Your task to perform on an android device: turn on airplane mode Image 0: 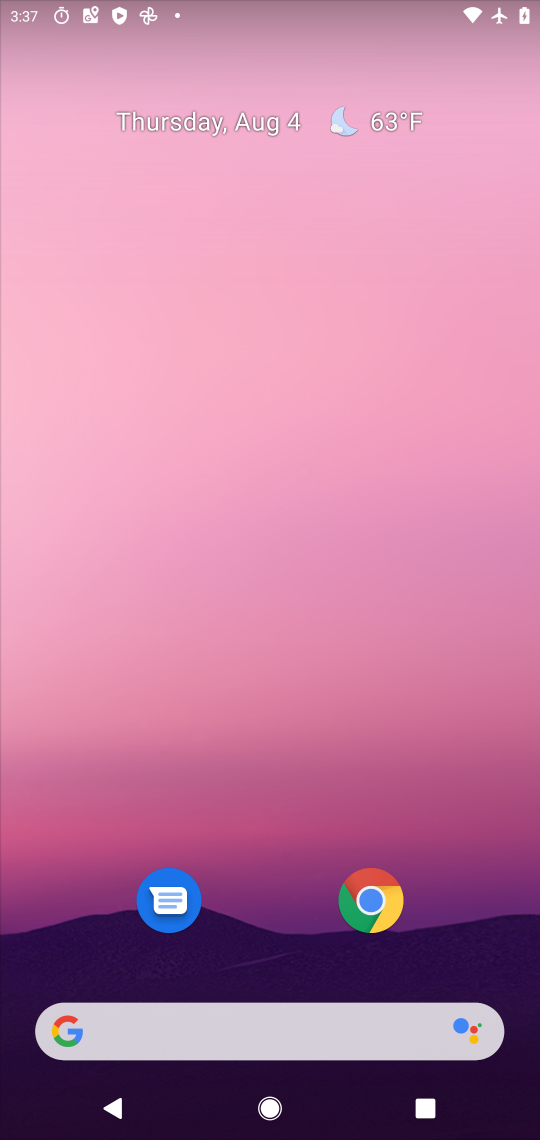
Step 0: drag from (496, 941) to (249, 98)
Your task to perform on an android device: turn on airplane mode Image 1: 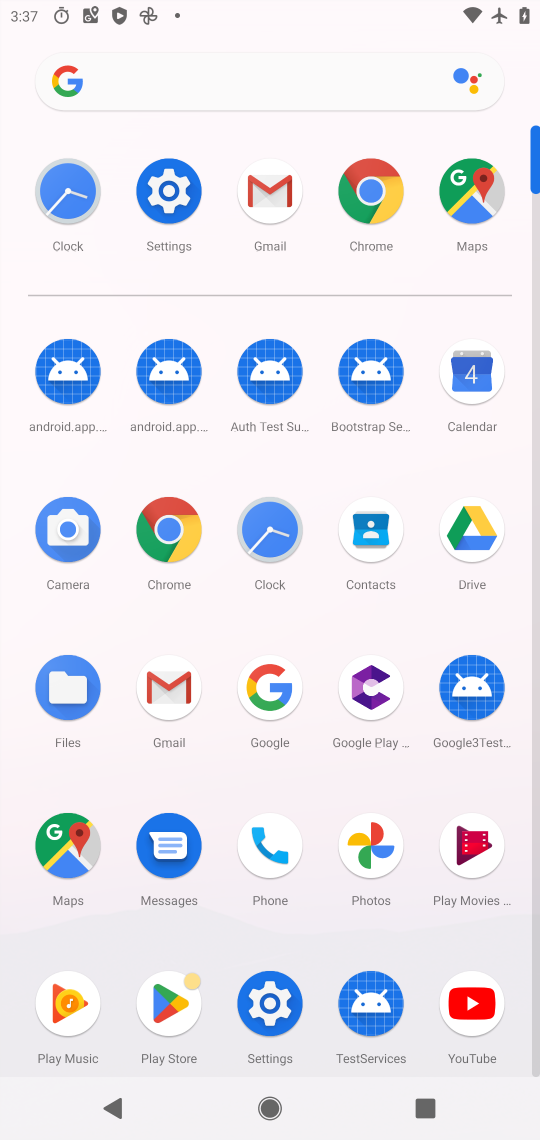
Step 1: click (173, 212)
Your task to perform on an android device: turn on airplane mode Image 2: 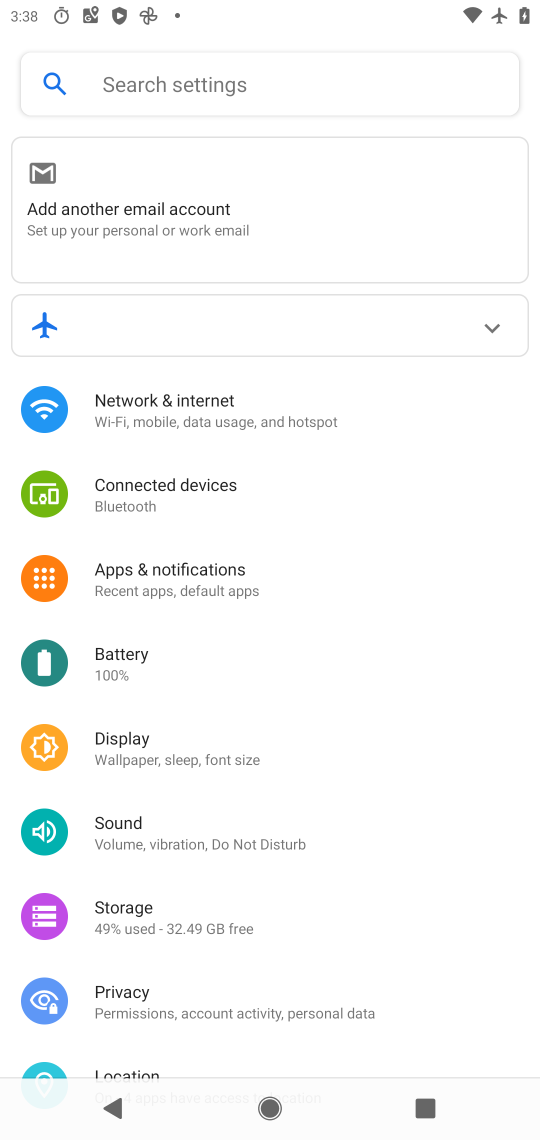
Step 2: click (261, 408)
Your task to perform on an android device: turn on airplane mode Image 3: 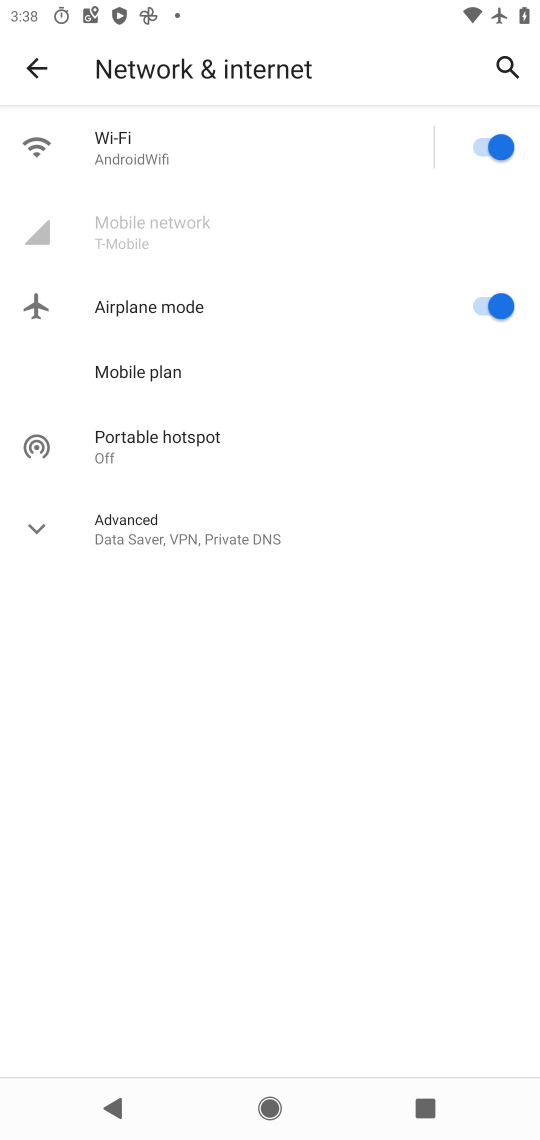
Step 3: task complete